Your task to perform on an android device: find photos in the google photos app Image 0: 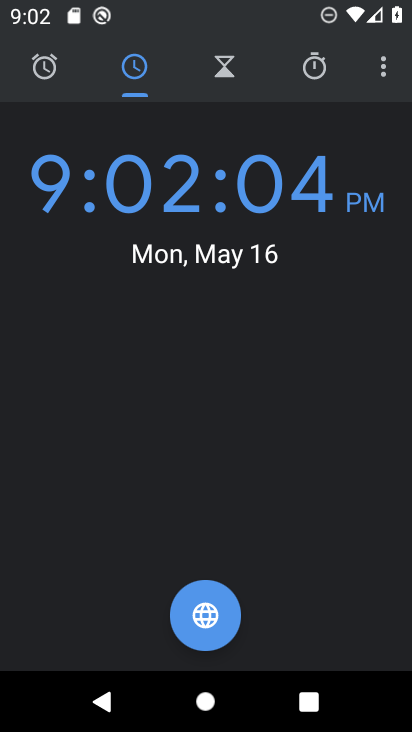
Step 0: press home button
Your task to perform on an android device: find photos in the google photos app Image 1: 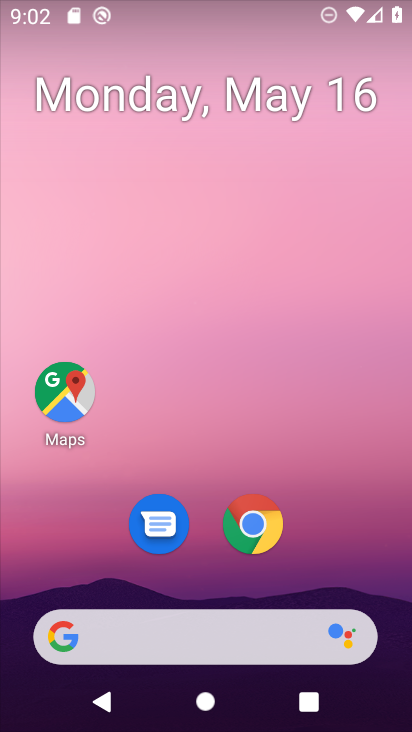
Step 1: drag from (322, 545) to (329, 46)
Your task to perform on an android device: find photos in the google photos app Image 2: 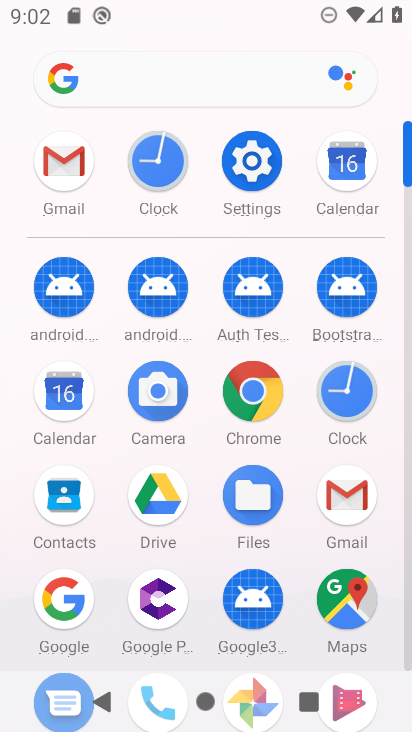
Step 2: drag from (265, 533) to (296, 281)
Your task to perform on an android device: find photos in the google photos app Image 3: 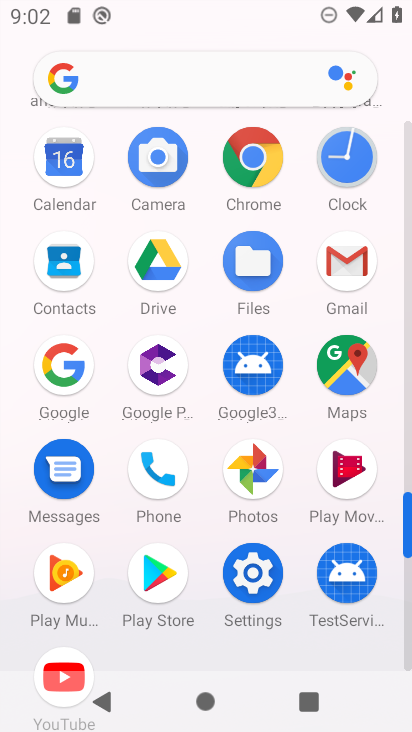
Step 3: click (263, 462)
Your task to perform on an android device: find photos in the google photos app Image 4: 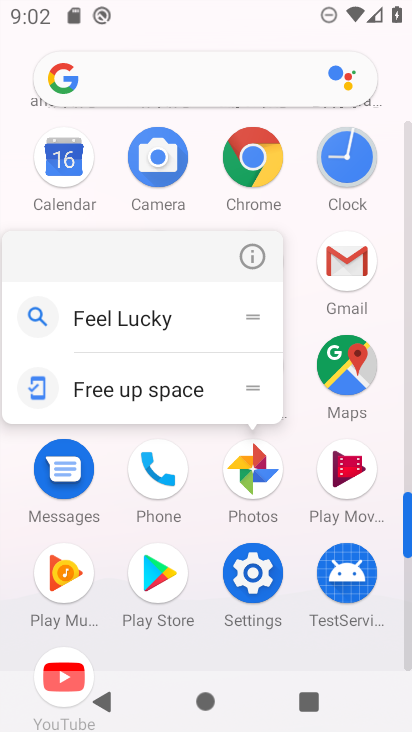
Step 4: click (250, 454)
Your task to perform on an android device: find photos in the google photos app Image 5: 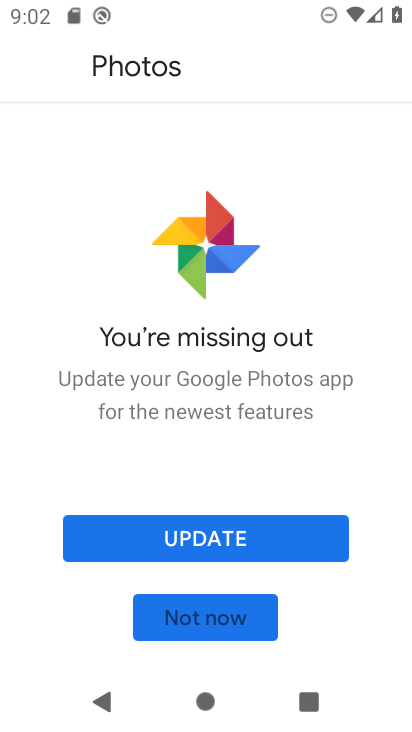
Step 5: click (238, 624)
Your task to perform on an android device: find photos in the google photos app Image 6: 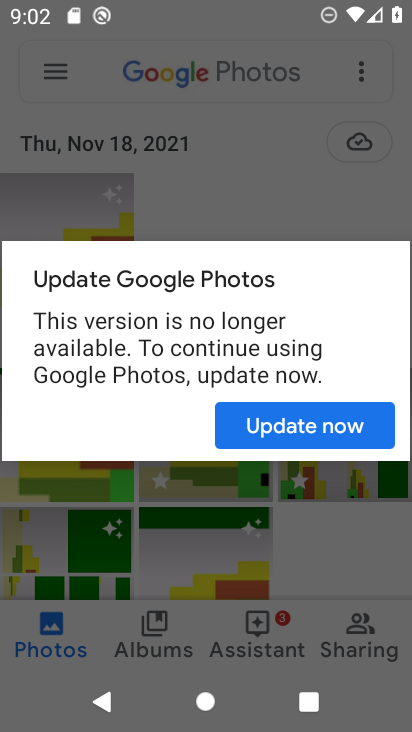
Step 6: click (334, 430)
Your task to perform on an android device: find photos in the google photos app Image 7: 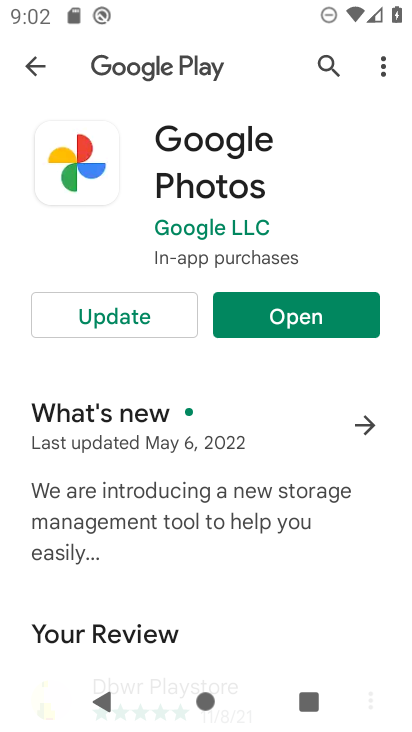
Step 7: click (307, 314)
Your task to perform on an android device: find photos in the google photos app Image 8: 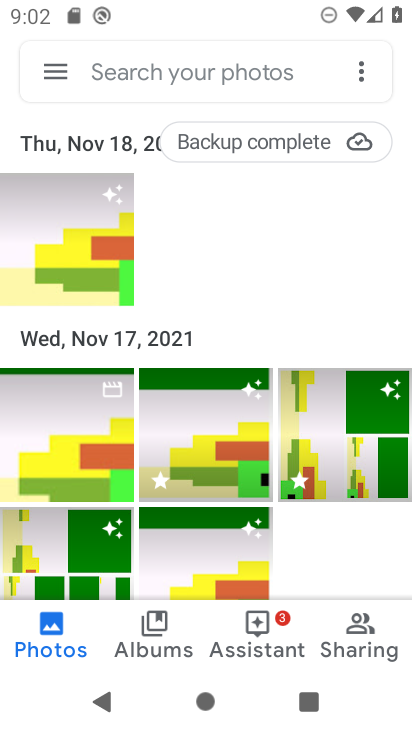
Step 8: click (70, 262)
Your task to perform on an android device: find photos in the google photos app Image 9: 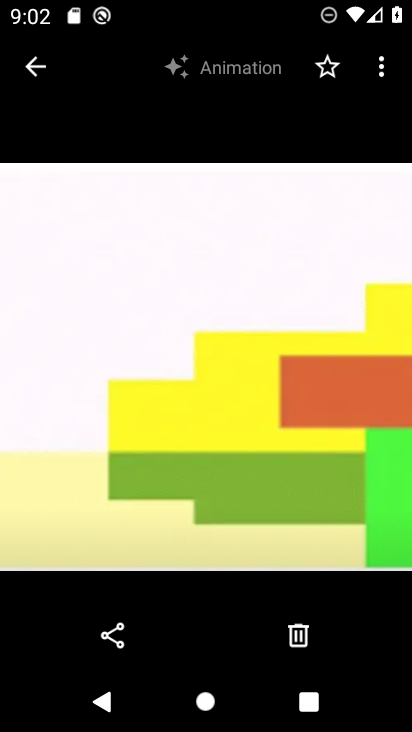
Step 9: task complete